Your task to perform on an android device: snooze an email in the gmail app Image 0: 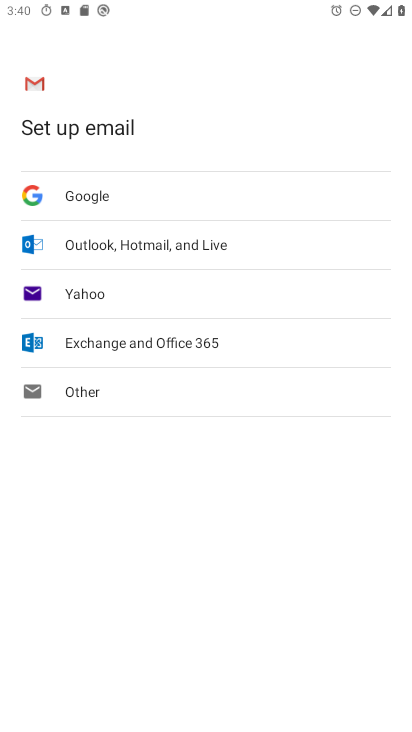
Step 0: press home button
Your task to perform on an android device: snooze an email in the gmail app Image 1: 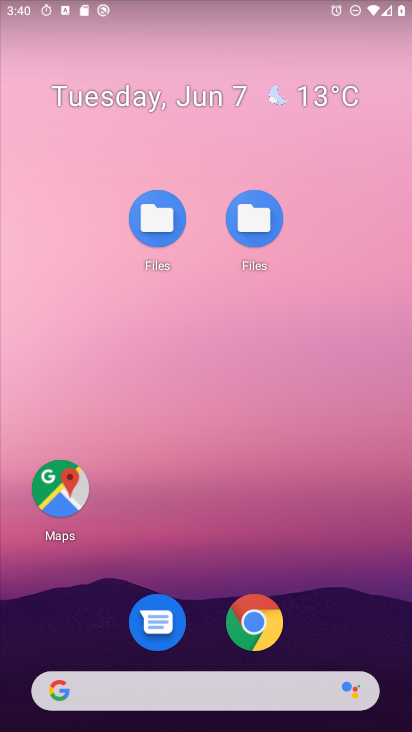
Step 1: drag from (338, 598) to (338, 203)
Your task to perform on an android device: snooze an email in the gmail app Image 2: 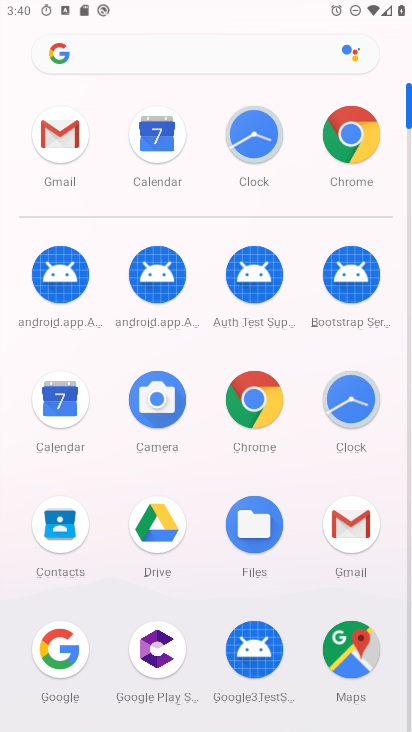
Step 2: click (58, 155)
Your task to perform on an android device: snooze an email in the gmail app Image 3: 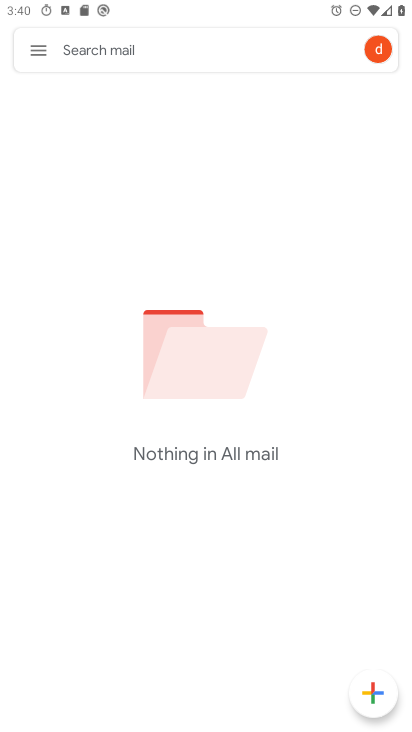
Step 3: click (31, 60)
Your task to perform on an android device: snooze an email in the gmail app Image 4: 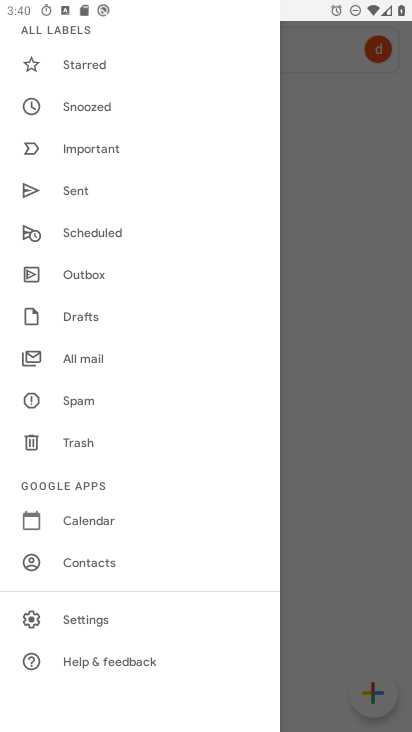
Step 4: click (61, 112)
Your task to perform on an android device: snooze an email in the gmail app Image 5: 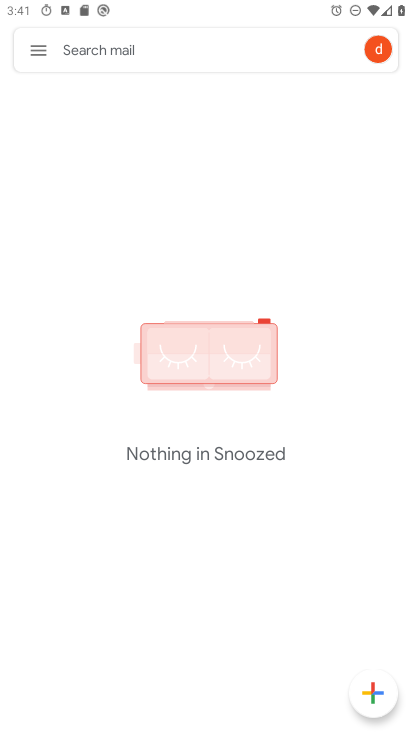
Step 5: task complete